Your task to perform on an android device: turn on airplane mode Image 0: 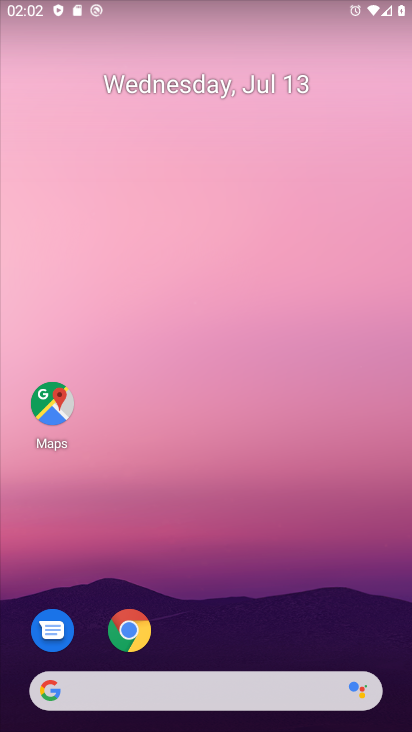
Step 0: drag from (208, 645) to (150, 212)
Your task to perform on an android device: turn on airplane mode Image 1: 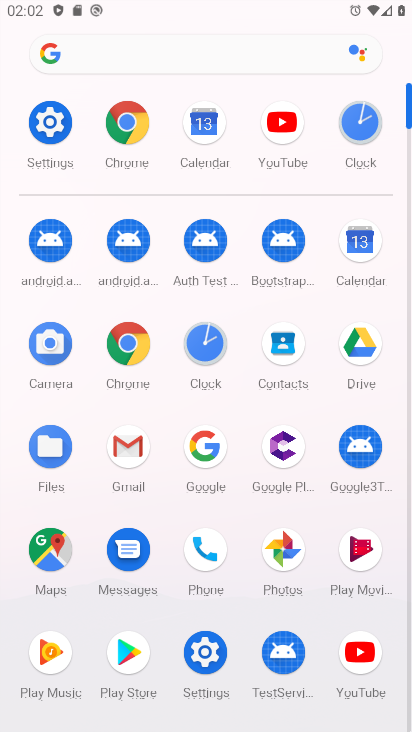
Step 1: click (42, 128)
Your task to perform on an android device: turn on airplane mode Image 2: 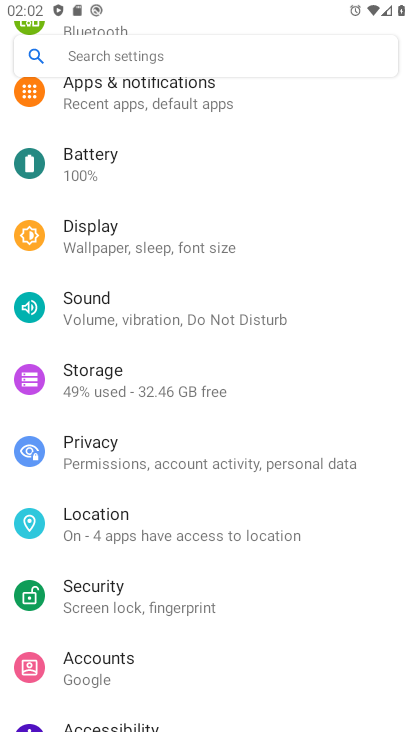
Step 2: drag from (210, 176) to (271, 438)
Your task to perform on an android device: turn on airplane mode Image 3: 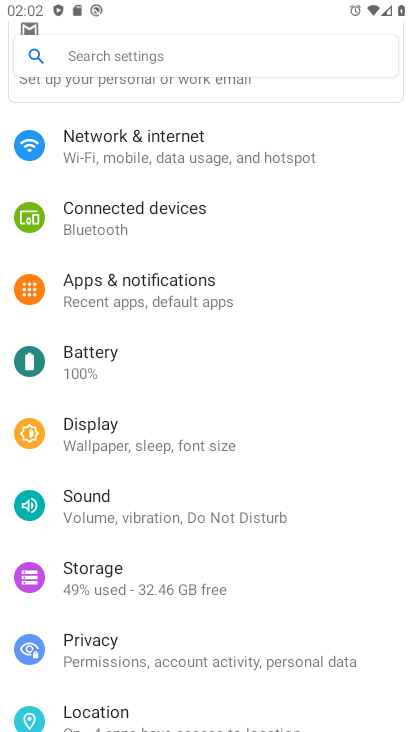
Step 3: click (172, 172)
Your task to perform on an android device: turn on airplane mode Image 4: 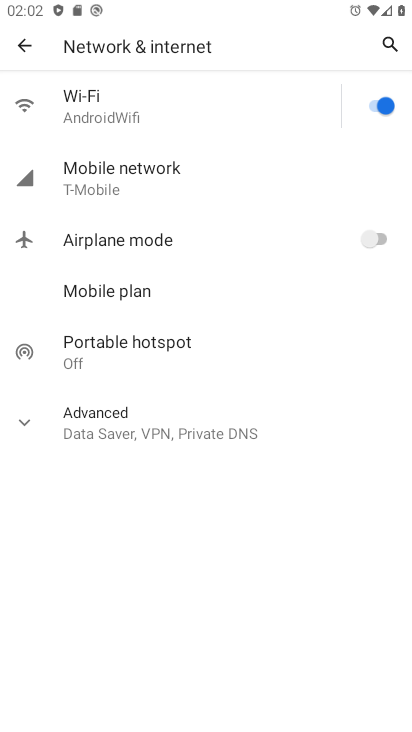
Step 4: click (388, 237)
Your task to perform on an android device: turn on airplane mode Image 5: 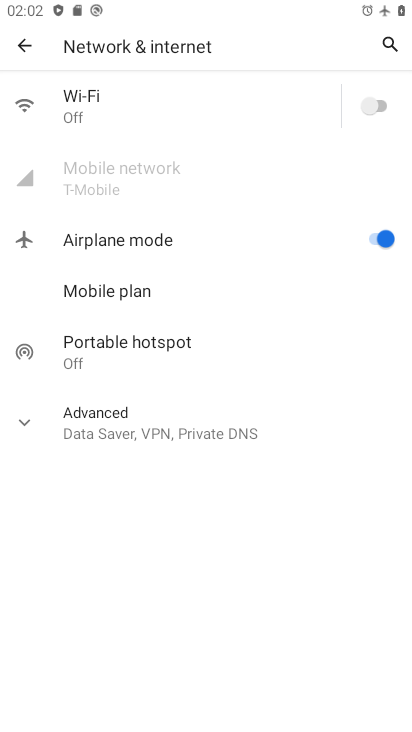
Step 5: task complete